Your task to perform on an android device: Open Chrome and go to the settings page Image 0: 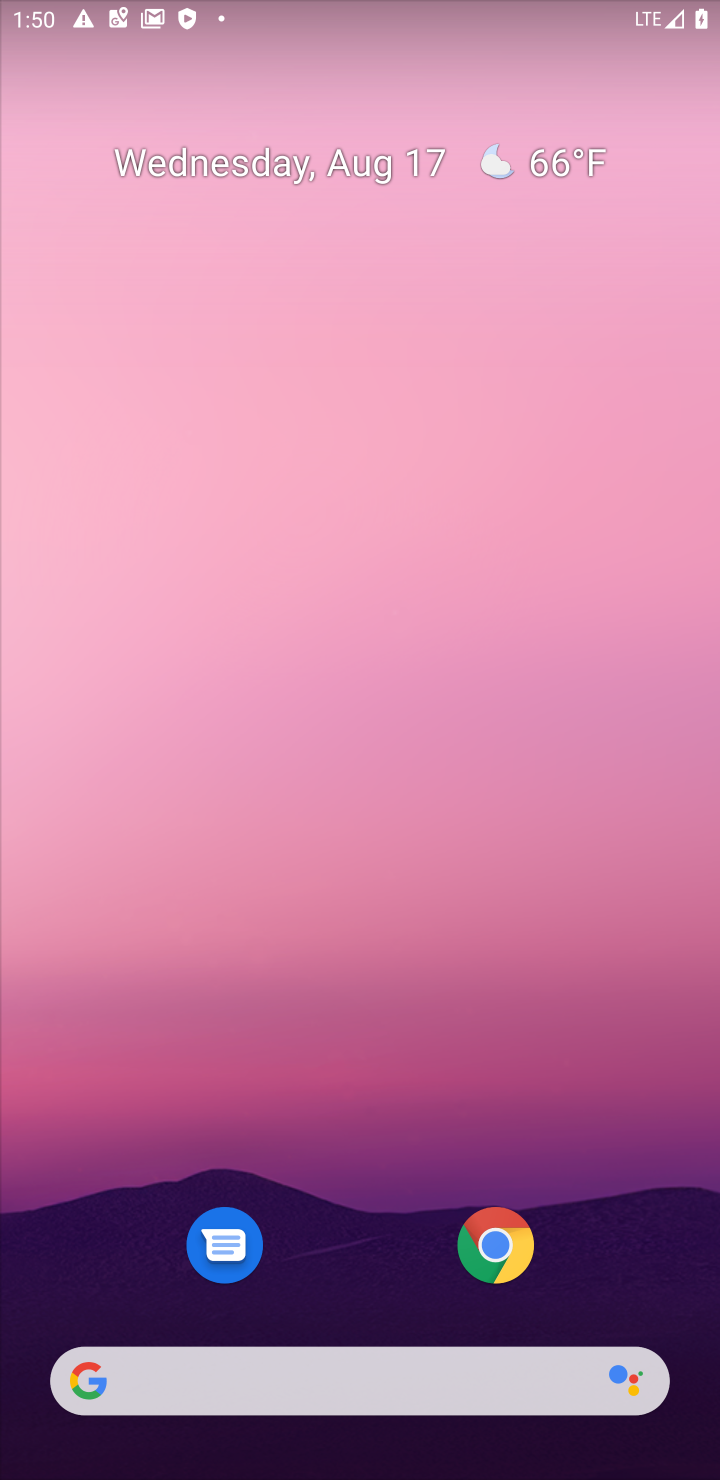
Step 0: click (479, 1267)
Your task to perform on an android device: Open Chrome and go to the settings page Image 1: 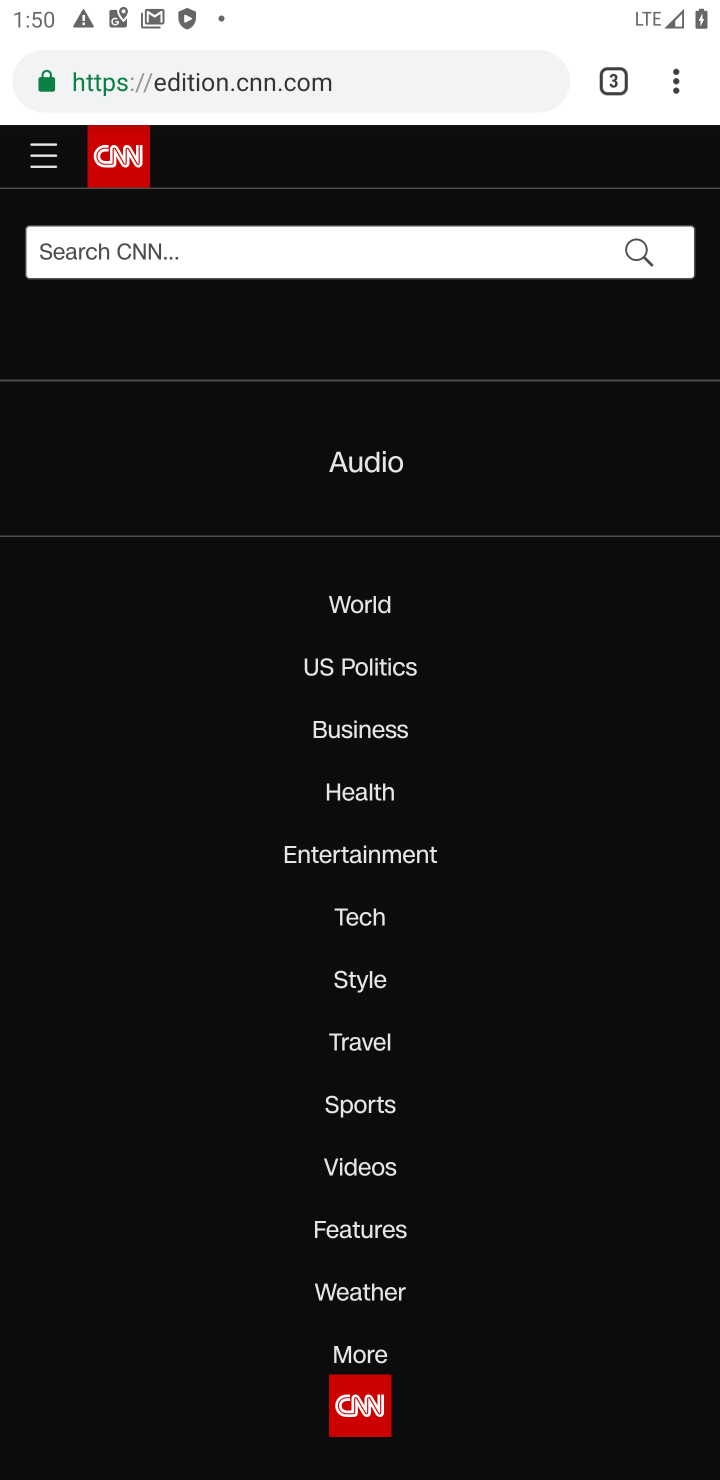
Step 1: click (674, 92)
Your task to perform on an android device: Open Chrome and go to the settings page Image 2: 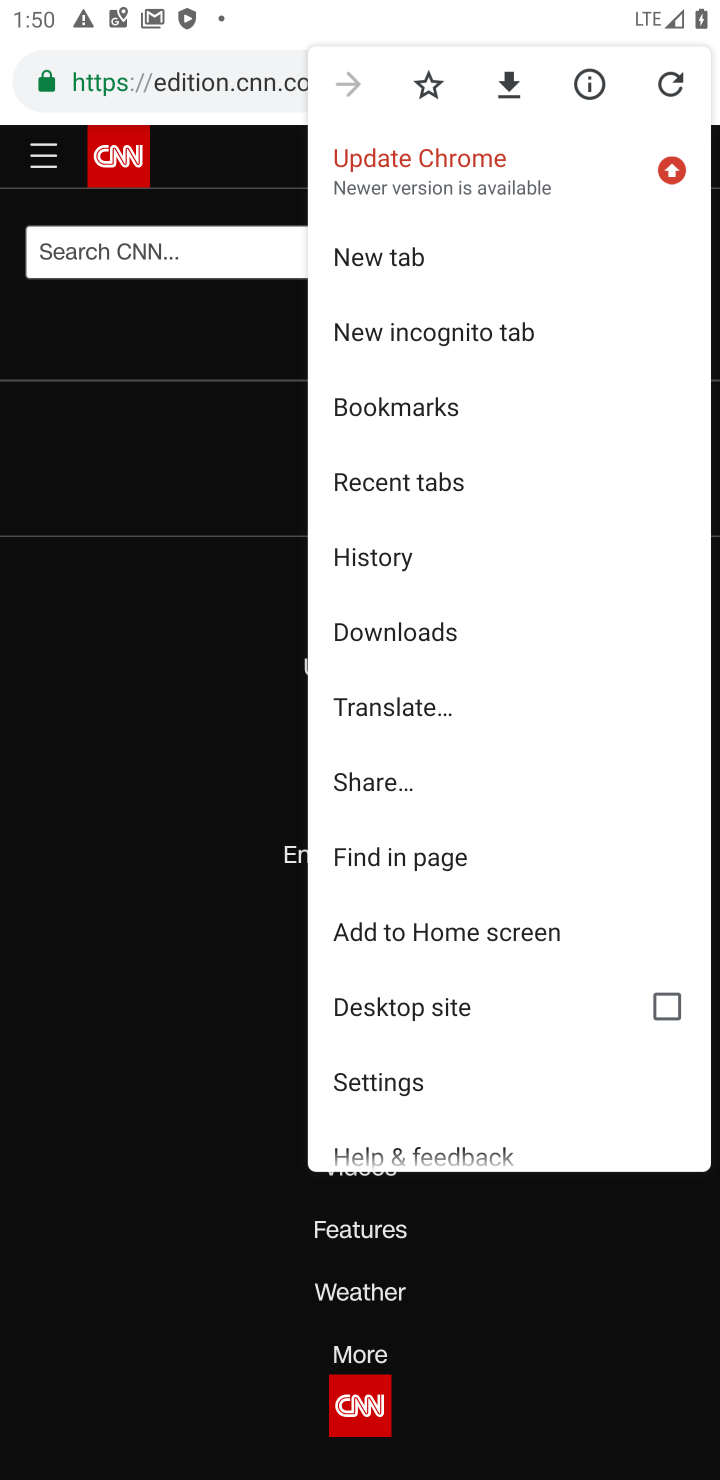
Step 2: click (385, 1086)
Your task to perform on an android device: Open Chrome and go to the settings page Image 3: 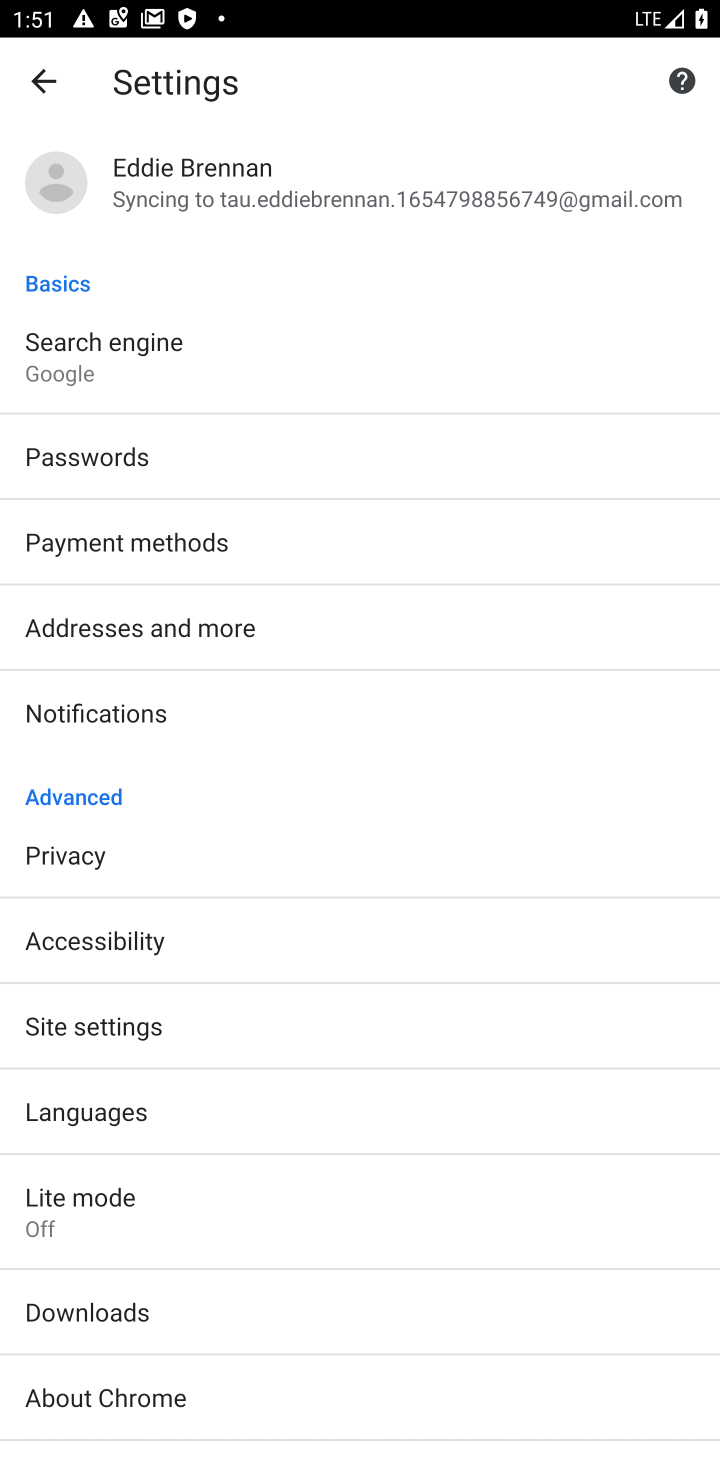
Step 3: task complete